Your task to perform on an android device: Open the web browser Image 0: 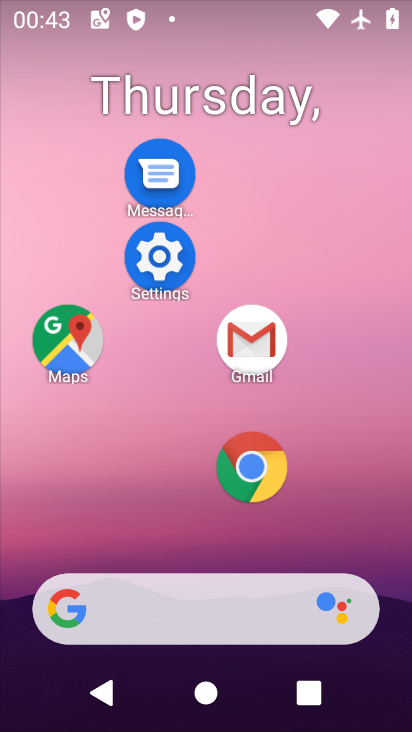
Step 0: drag from (159, 509) to (298, 52)
Your task to perform on an android device: Open the web browser Image 1: 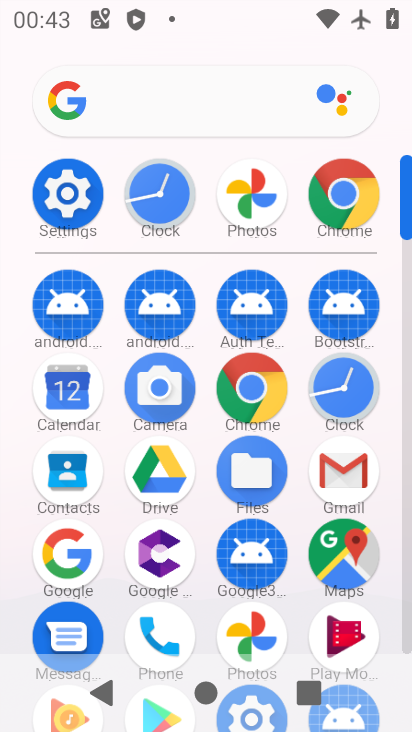
Step 1: drag from (215, 654) to (237, 148)
Your task to perform on an android device: Open the web browser Image 2: 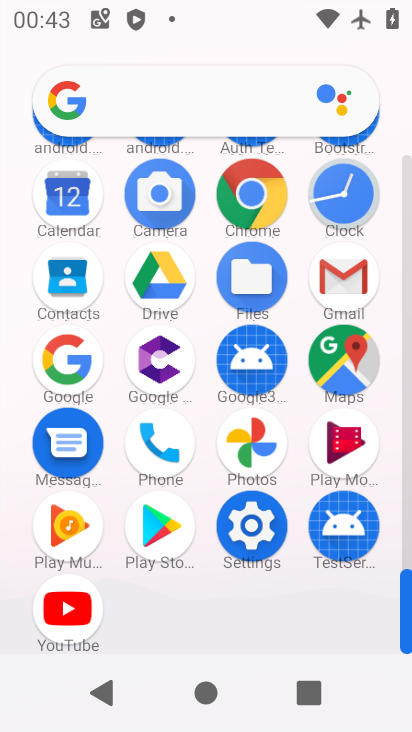
Step 2: click (260, 188)
Your task to perform on an android device: Open the web browser Image 3: 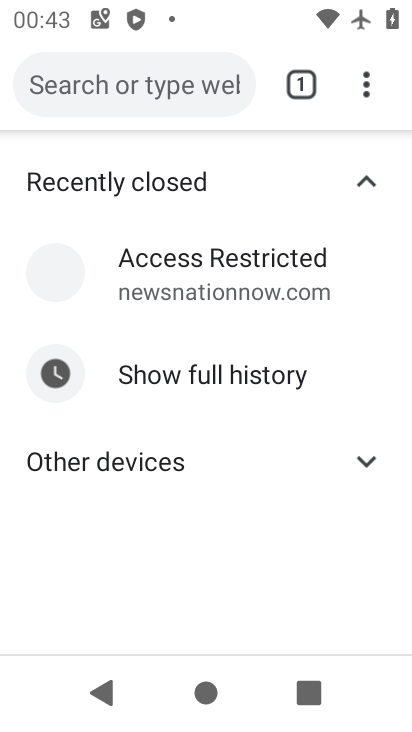
Step 3: task complete